Your task to perform on an android device: Open notification settings Image 0: 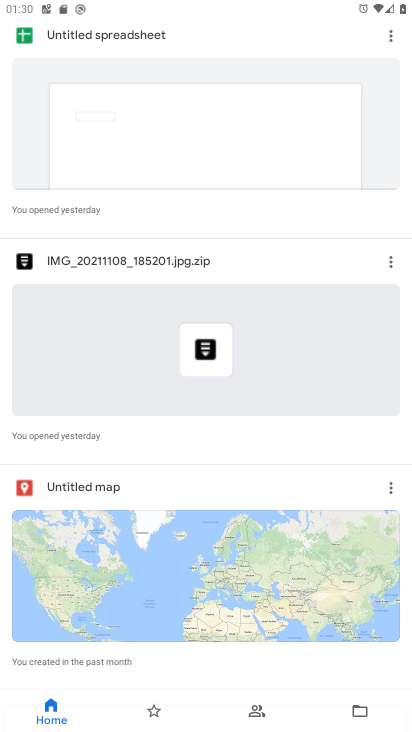
Step 0: press home button
Your task to perform on an android device: Open notification settings Image 1: 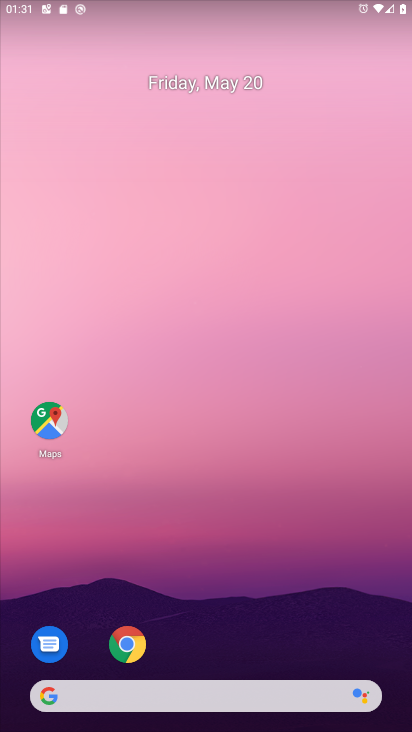
Step 1: drag from (141, 683) to (165, 330)
Your task to perform on an android device: Open notification settings Image 2: 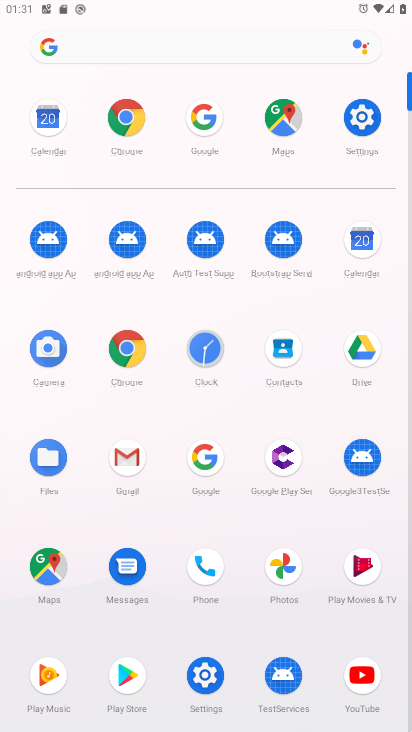
Step 2: click (369, 113)
Your task to perform on an android device: Open notification settings Image 3: 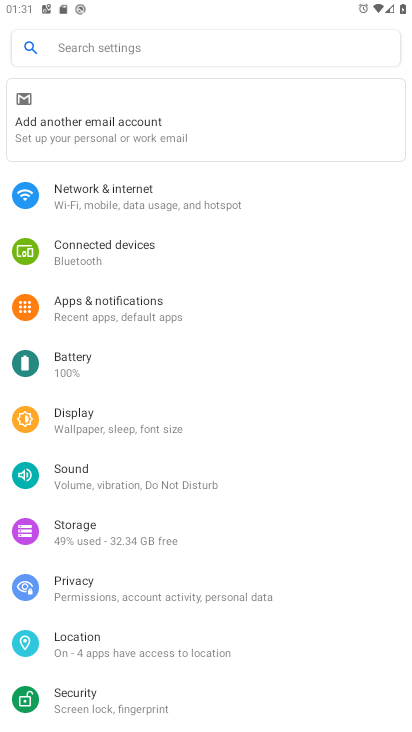
Step 3: click (92, 305)
Your task to perform on an android device: Open notification settings Image 4: 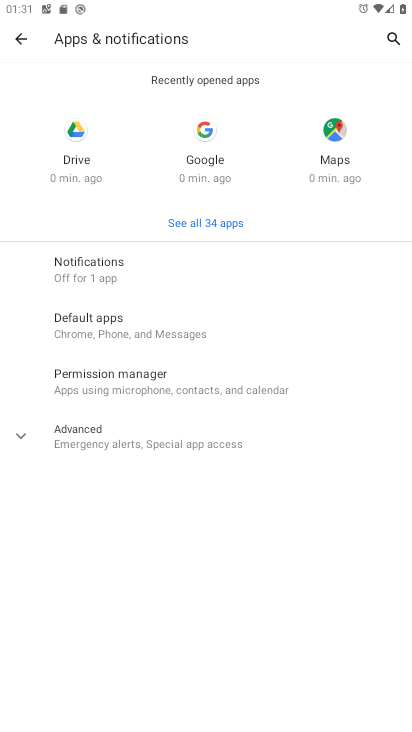
Step 4: click (84, 268)
Your task to perform on an android device: Open notification settings Image 5: 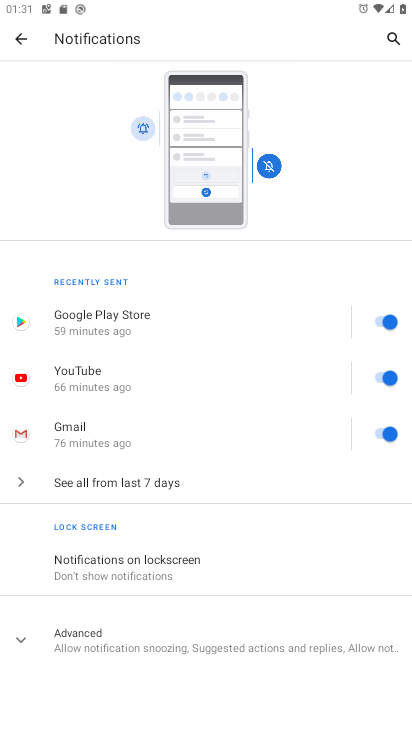
Step 5: drag from (101, 647) to (100, 384)
Your task to perform on an android device: Open notification settings Image 6: 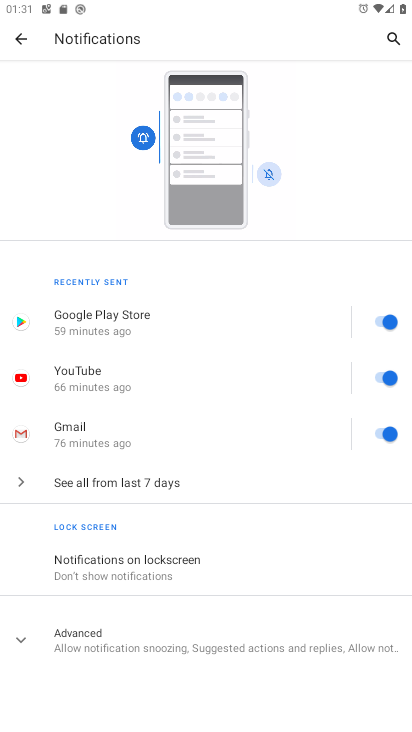
Step 6: click (88, 644)
Your task to perform on an android device: Open notification settings Image 7: 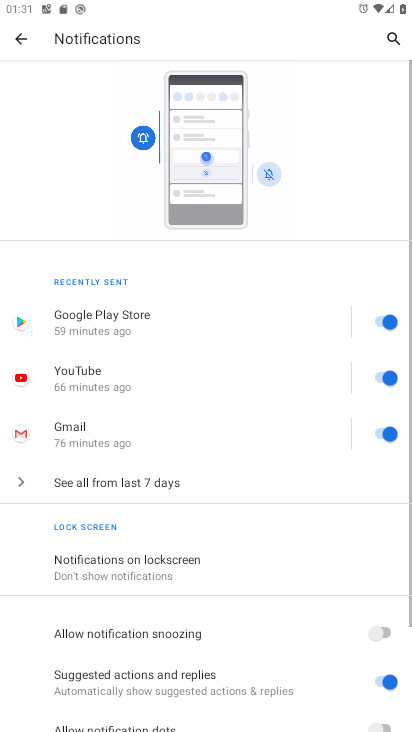
Step 7: task complete